Your task to perform on an android device: move a message to another label in the gmail app Image 0: 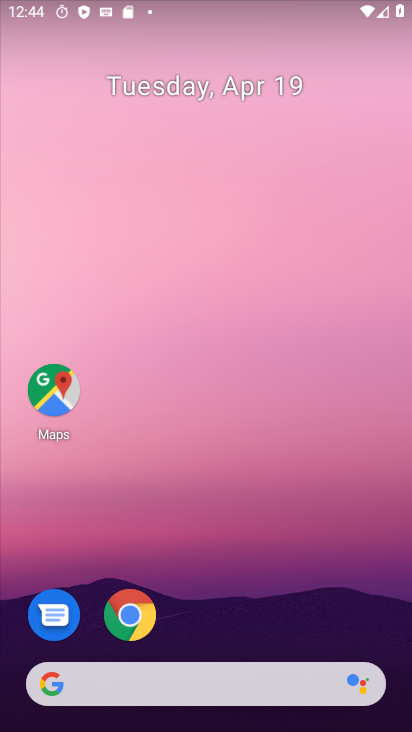
Step 0: drag from (383, 615) to (360, 134)
Your task to perform on an android device: move a message to another label in the gmail app Image 1: 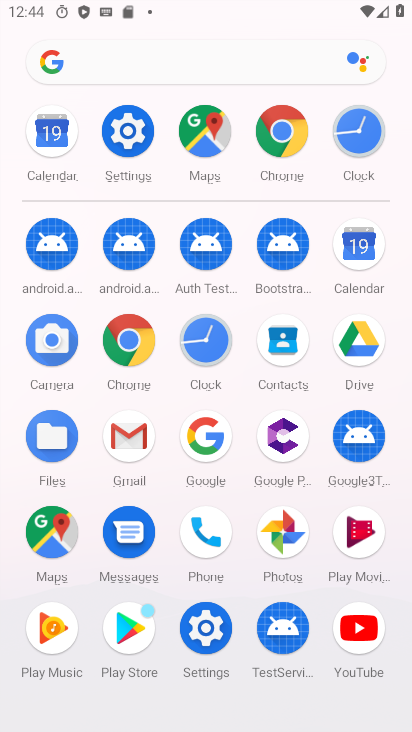
Step 1: click (127, 445)
Your task to perform on an android device: move a message to another label in the gmail app Image 2: 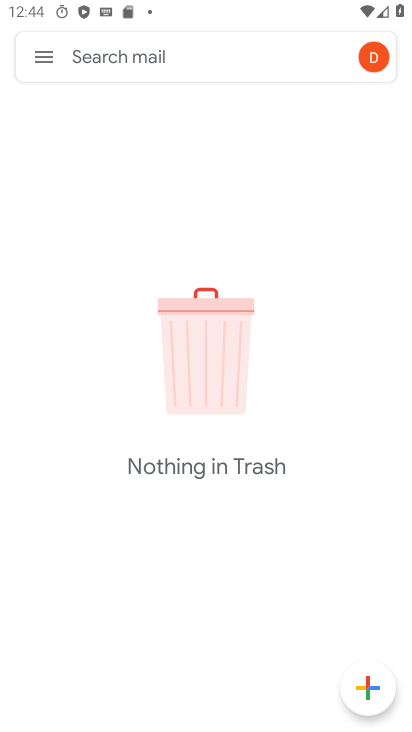
Step 2: click (37, 58)
Your task to perform on an android device: move a message to another label in the gmail app Image 3: 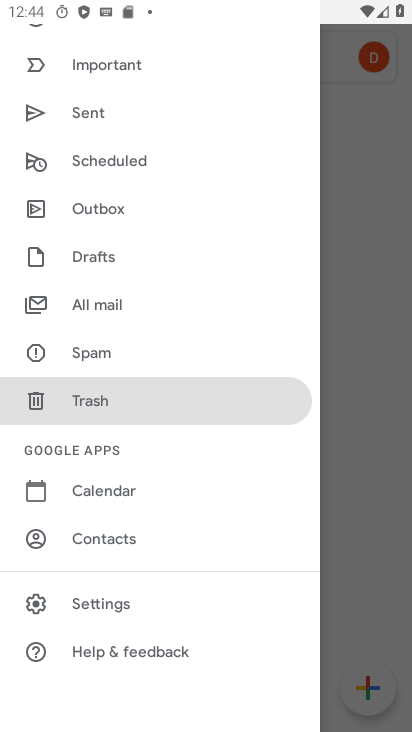
Step 3: drag from (258, 248) to (256, 444)
Your task to perform on an android device: move a message to another label in the gmail app Image 4: 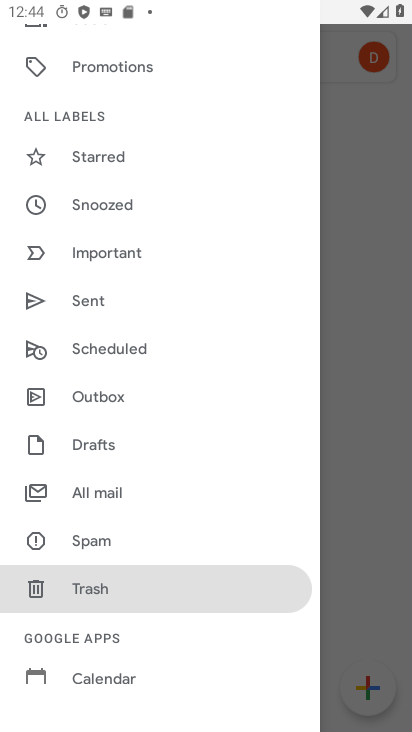
Step 4: drag from (270, 237) to (255, 454)
Your task to perform on an android device: move a message to another label in the gmail app Image 5: 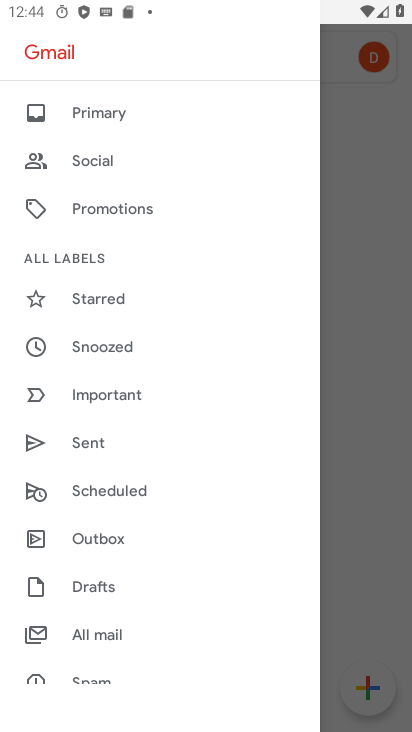
Step 5: drag from (232, 150) to (232, 380)
Your task to perform on an android device: move a message to another label in the gmail app Image 6: 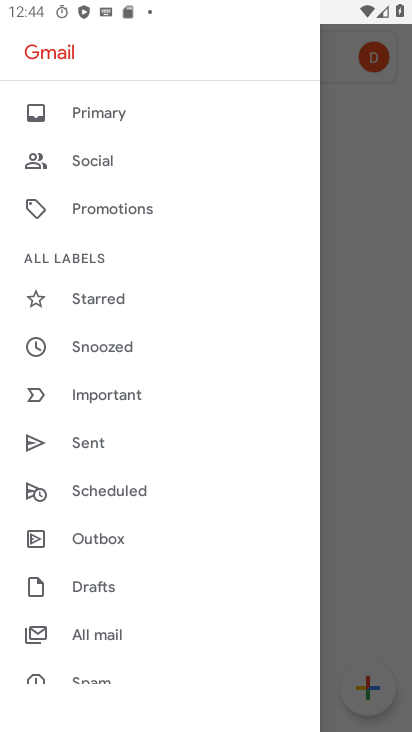
Step 6: click (128, 116)
Your task to perform on an android device: move a message to another label in the gmail app Image 7: 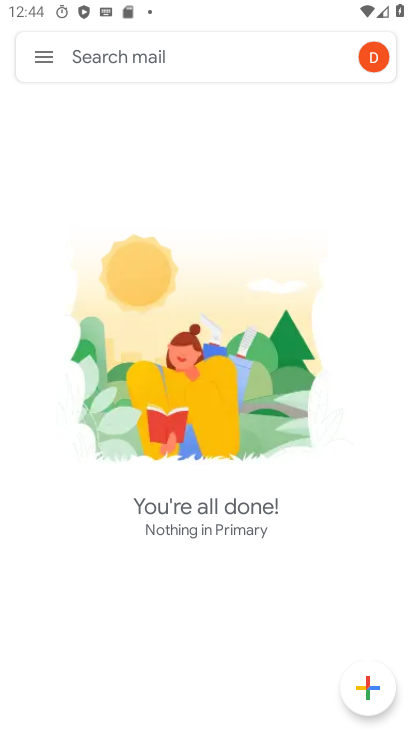
Step 7: task complete